Your task to perform on an android device: open app "Indeed Job Search" (install if not already installed) Image 0: 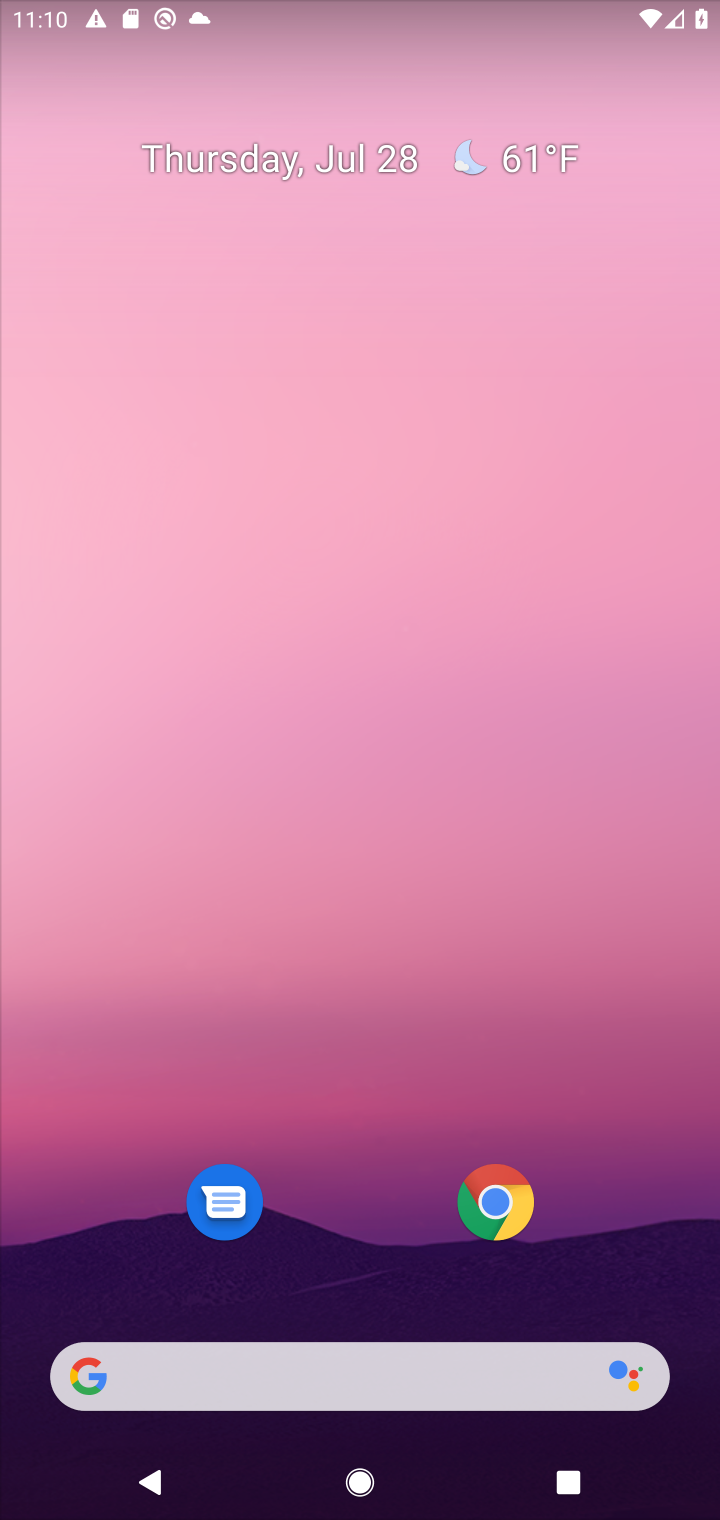
Step 0: click (257, 1391)
Your task to perform on an android device: open app "Indeed Job Search" (install if not already installed) Image 1: 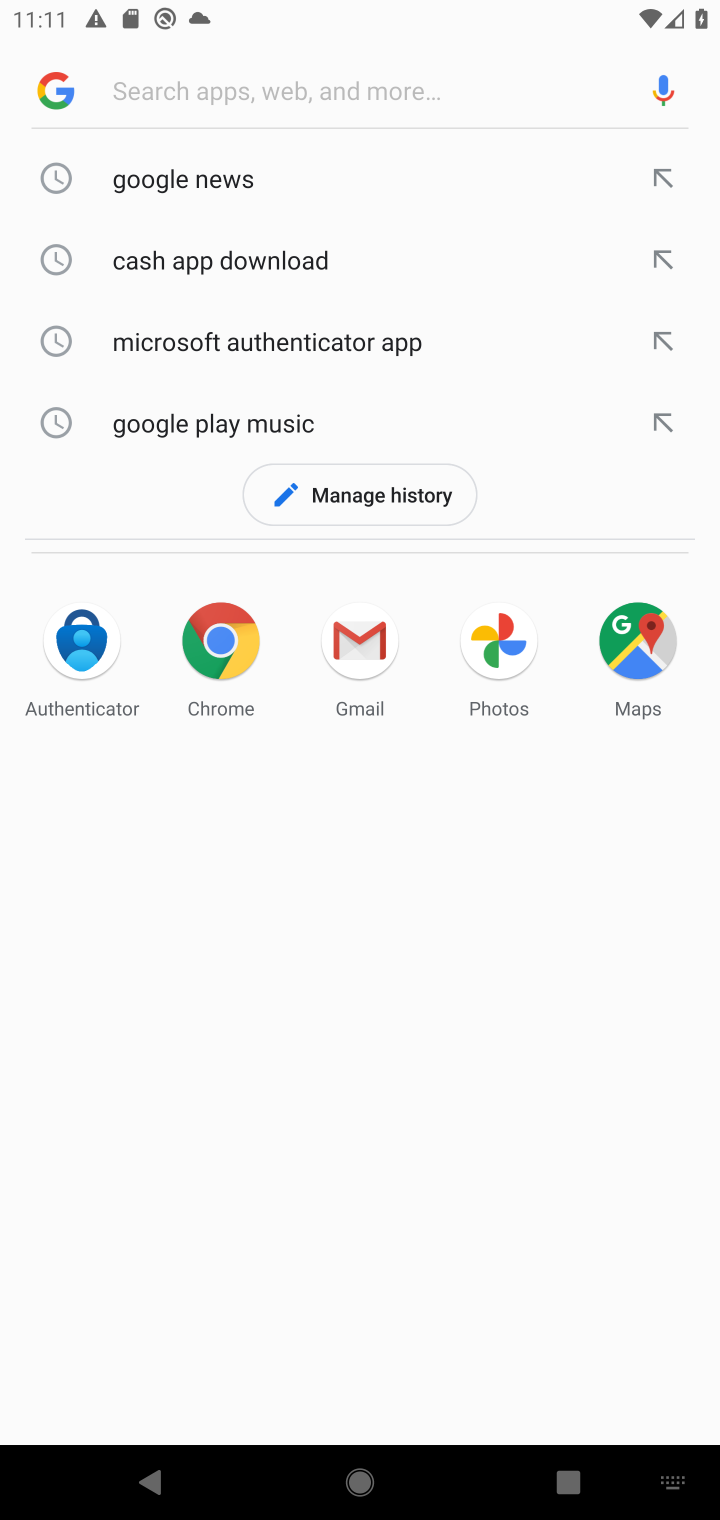
Step 1: type "indeeed\"
Your task to perform on an android device: open app "Indeed Job Search" (install if not already installed) Image 2: 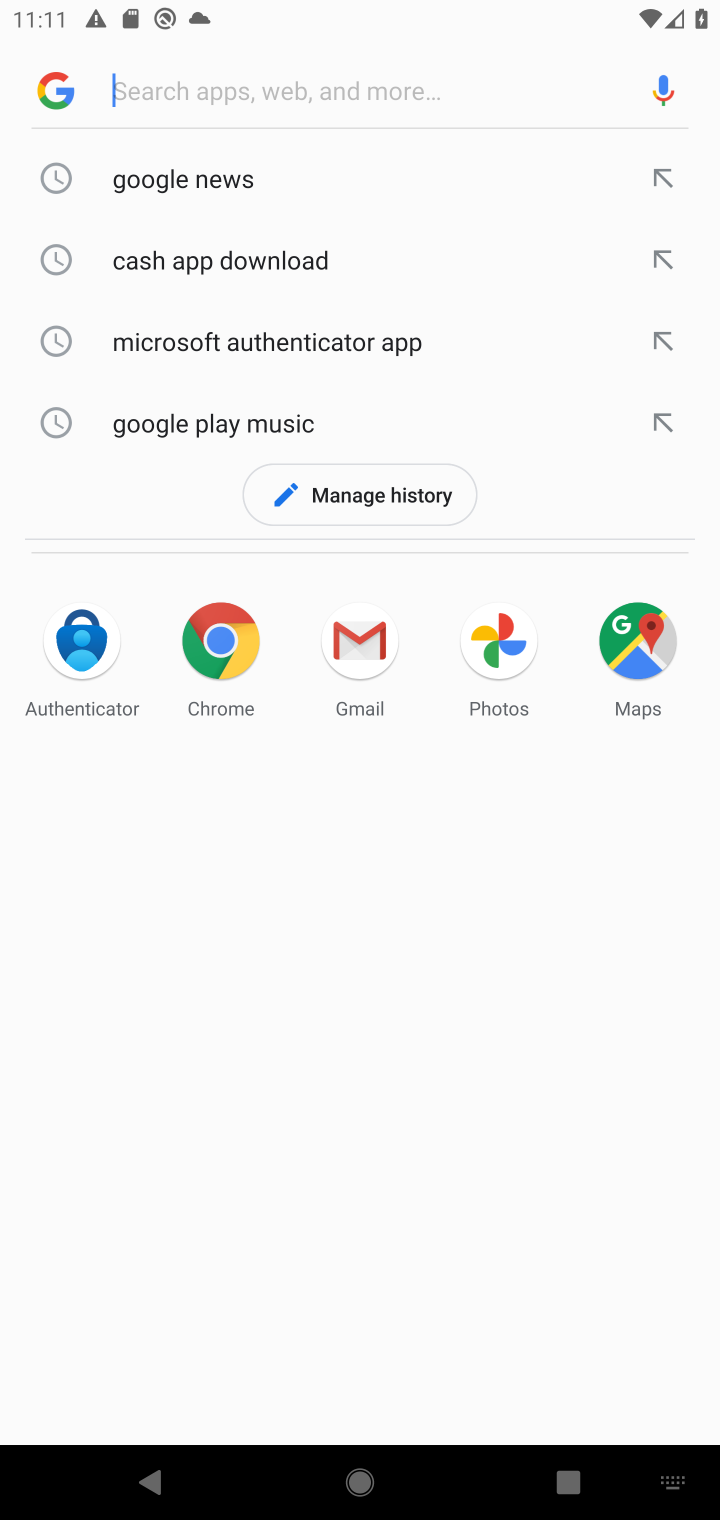
Step 2: click (233, 88)
Your task to perform on an android device: open app "Indeed Job Search" (install if not already installed) Image 3: 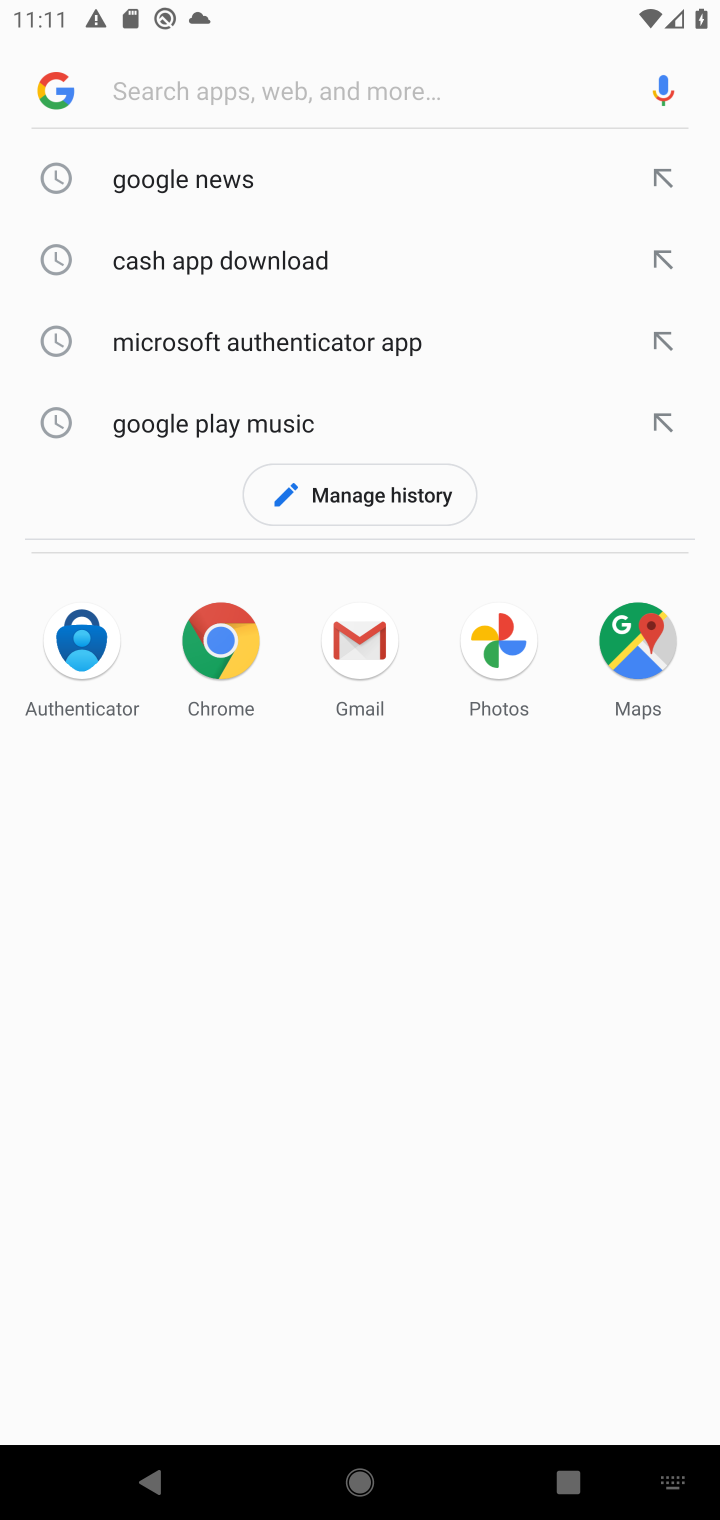
Step 3: click (233, 88)
Your task to perform on an android device: open app "Indeed Job Search" (install if not already installed) Image 4: 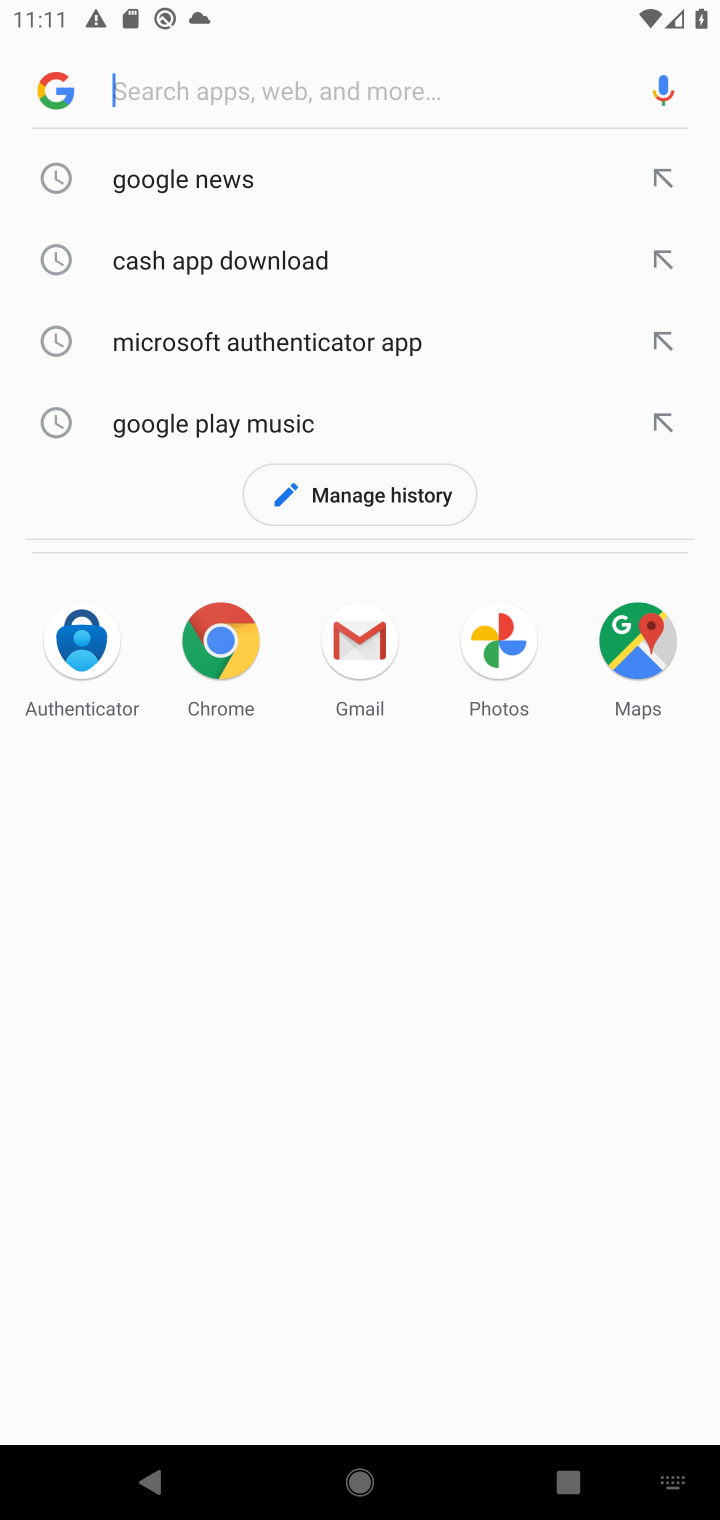
Step 4: type "indedeed"
Your task to perform on an android device: open app "Indeed Job Search" (install if not already installed) Image 5: 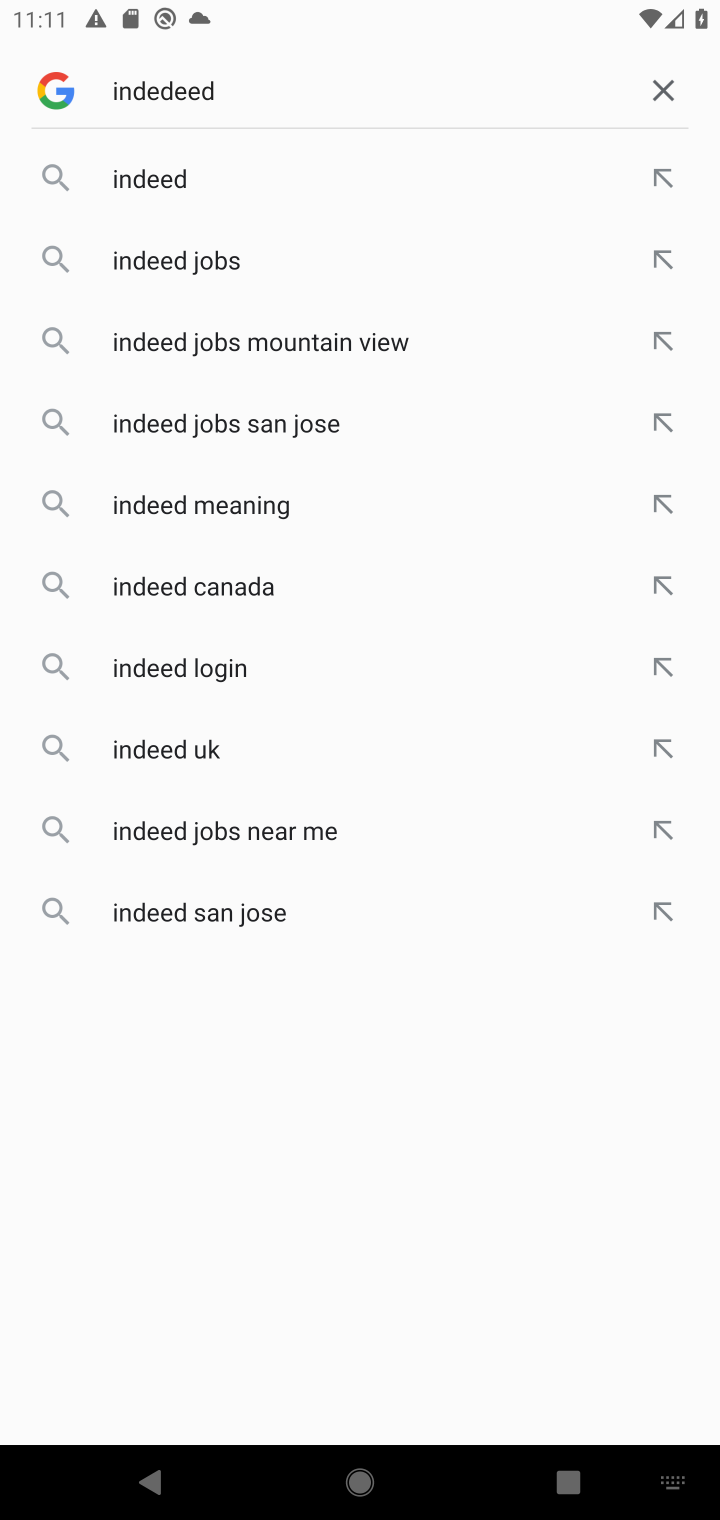
Step 5: click (163, 192)
Your task to perform on an android device: open app "Indeed Job Search" (install if not already installed) Image 6: 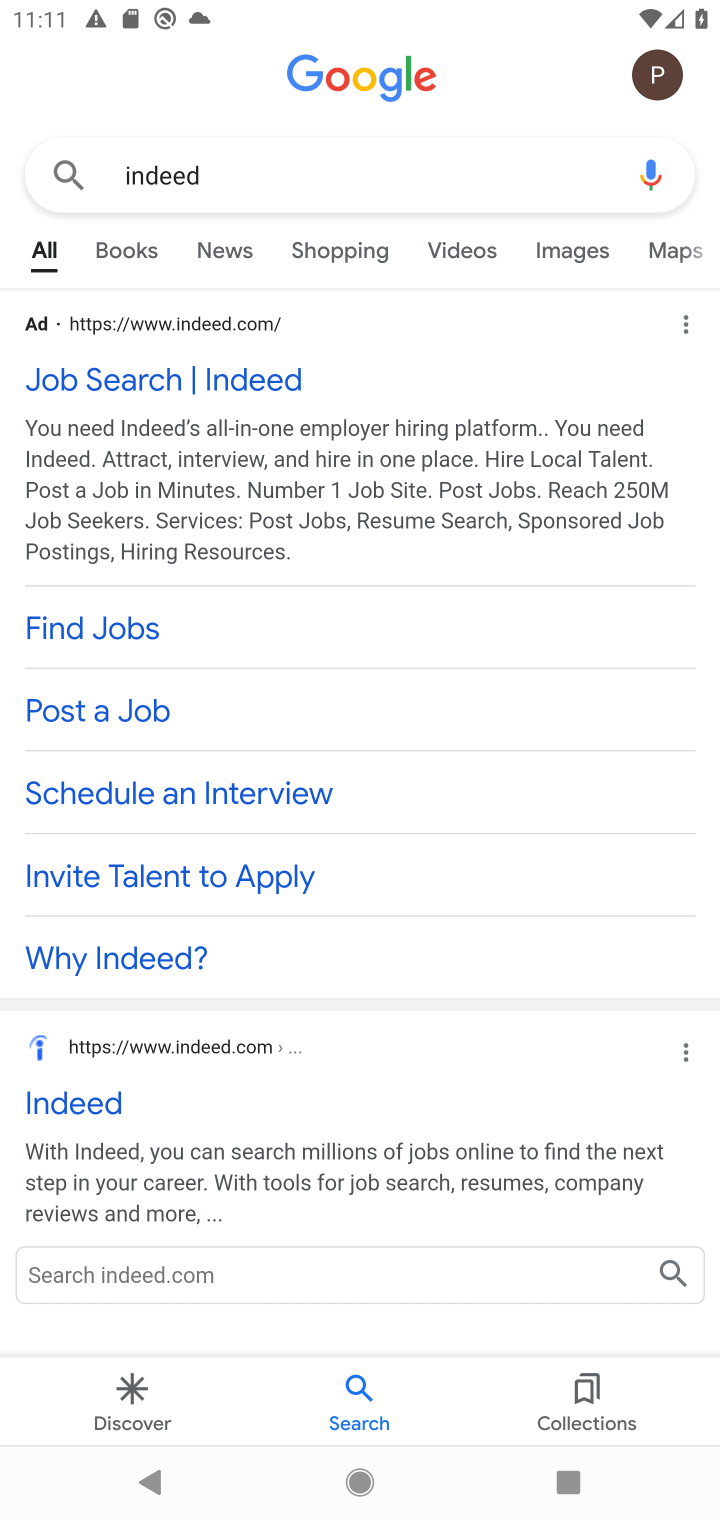
Step 6: drag from (310, 1074) to (434, 394)
Your task to perform on an android device: open app "Indeed Job Search" (install if not already installed) Image 7: 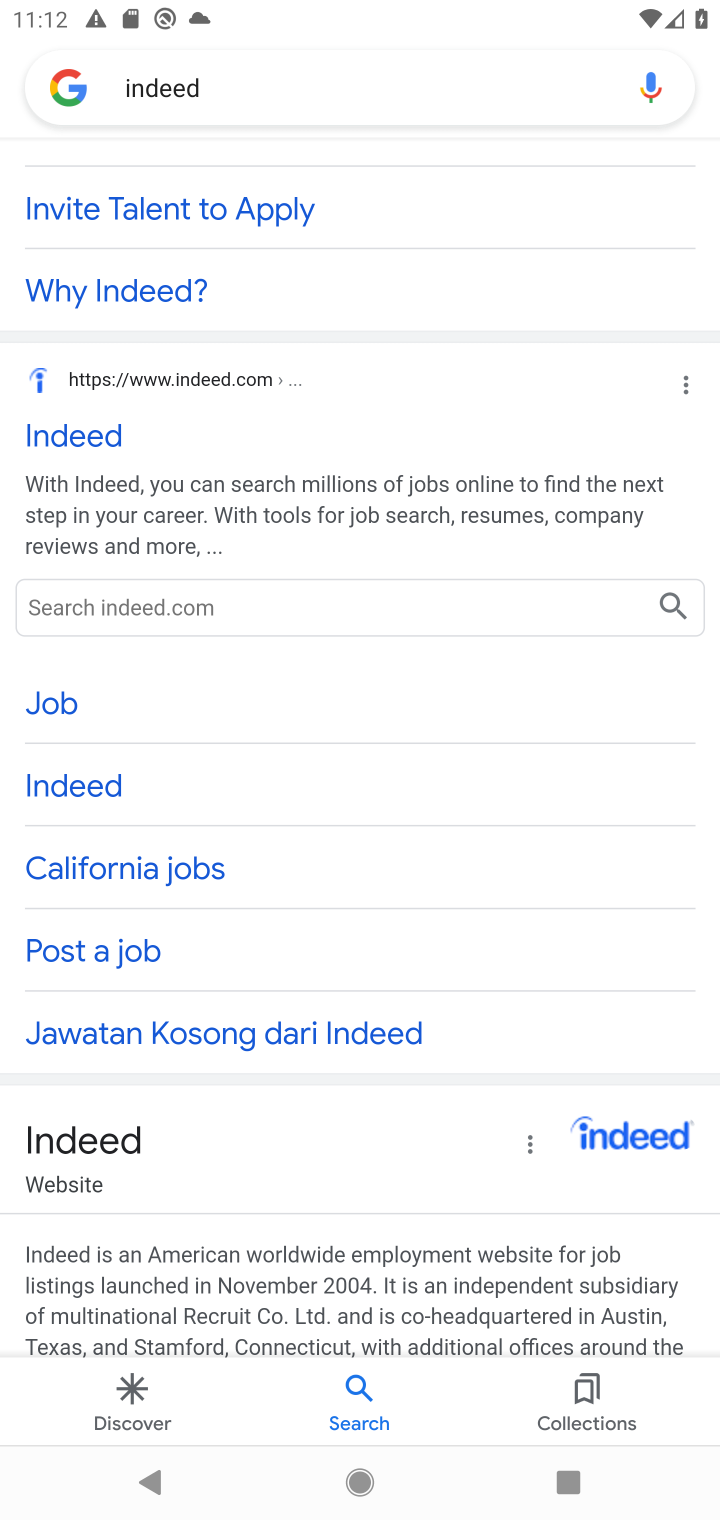
Step 7: drag from (395, 1189) to (519, 583)
Your task to perform on an android device: open app "Indeed Job Search" (install if not already installed) Image 8: 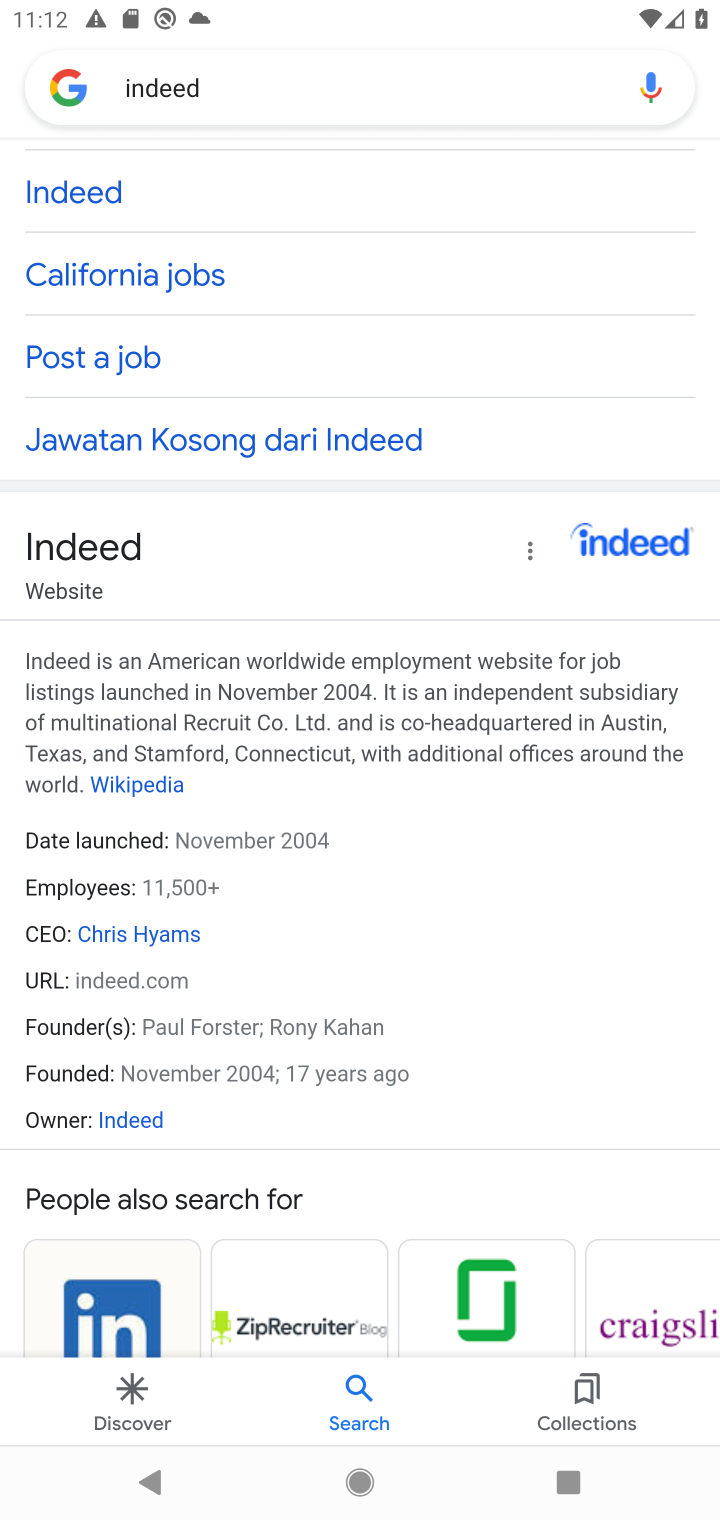
Step 8: drag from (402, 1124) to (483, 645)
Your task to perform on an android device: open app "Indeed Job Search" (install if not already installed) Image 9: 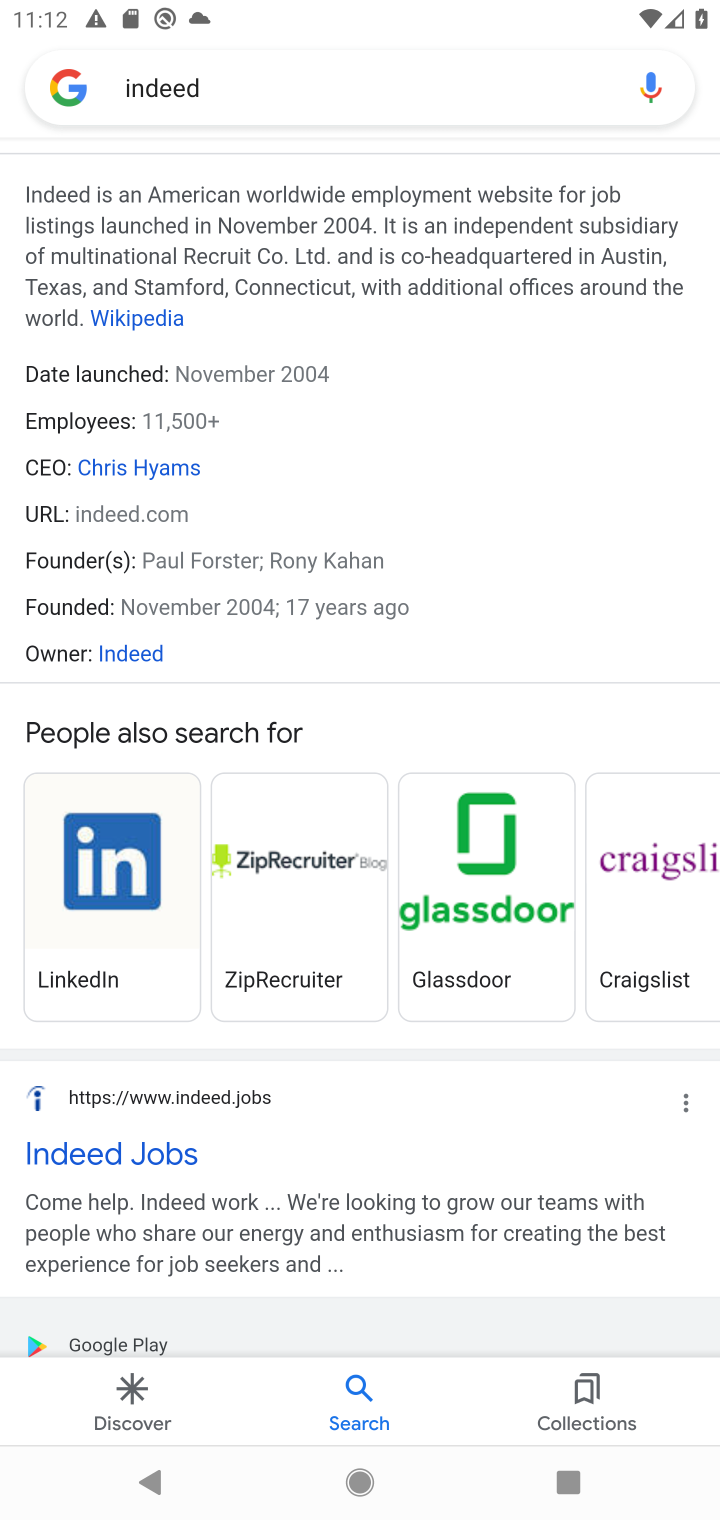
Step 9: drag from (419, 1266) to (458, 814)
Your task to perform on an android device: open app "Indeed Job Search" (install if not already installed) Image 10: 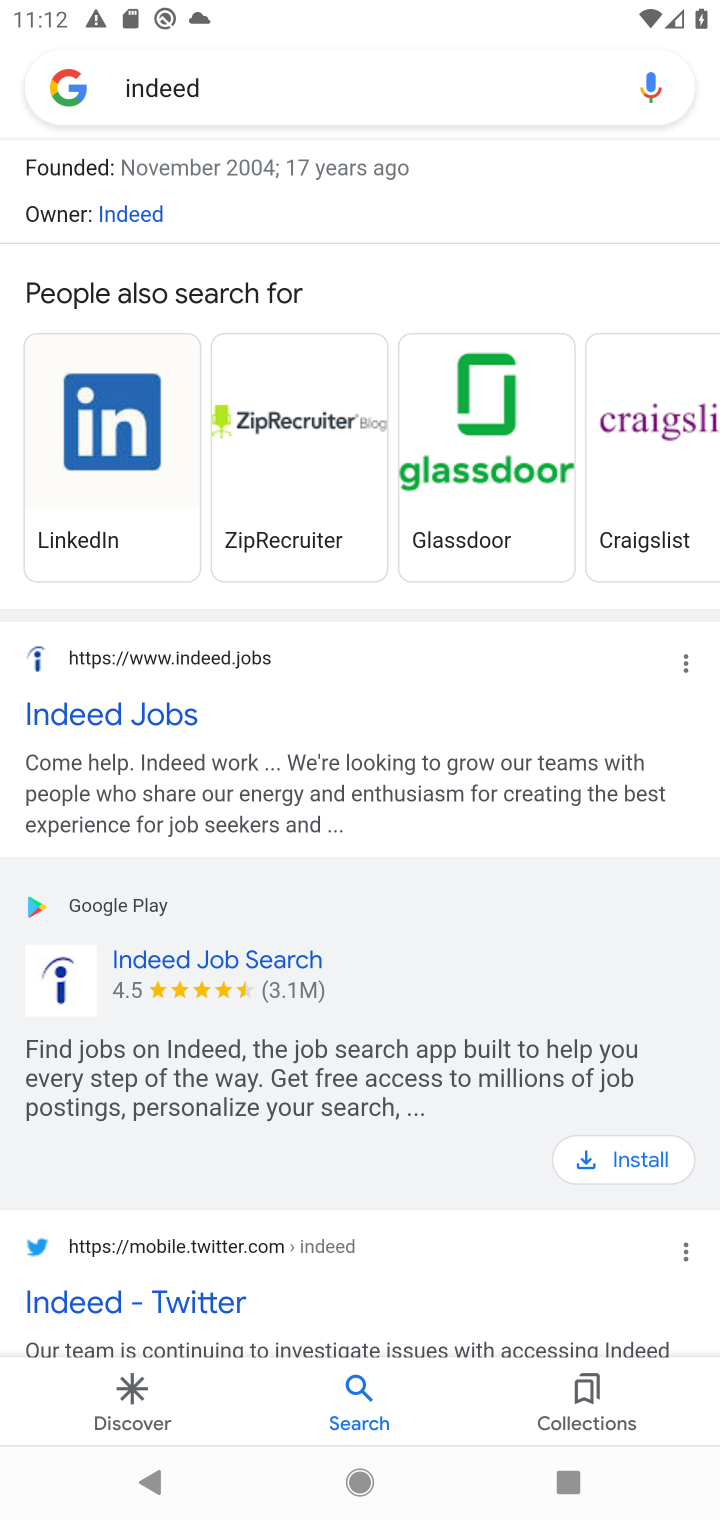
Step 10: click (573, 1162)
Your task to perform on an android device: open app "Indeed Job Search" (install if not already installed) Image 11: 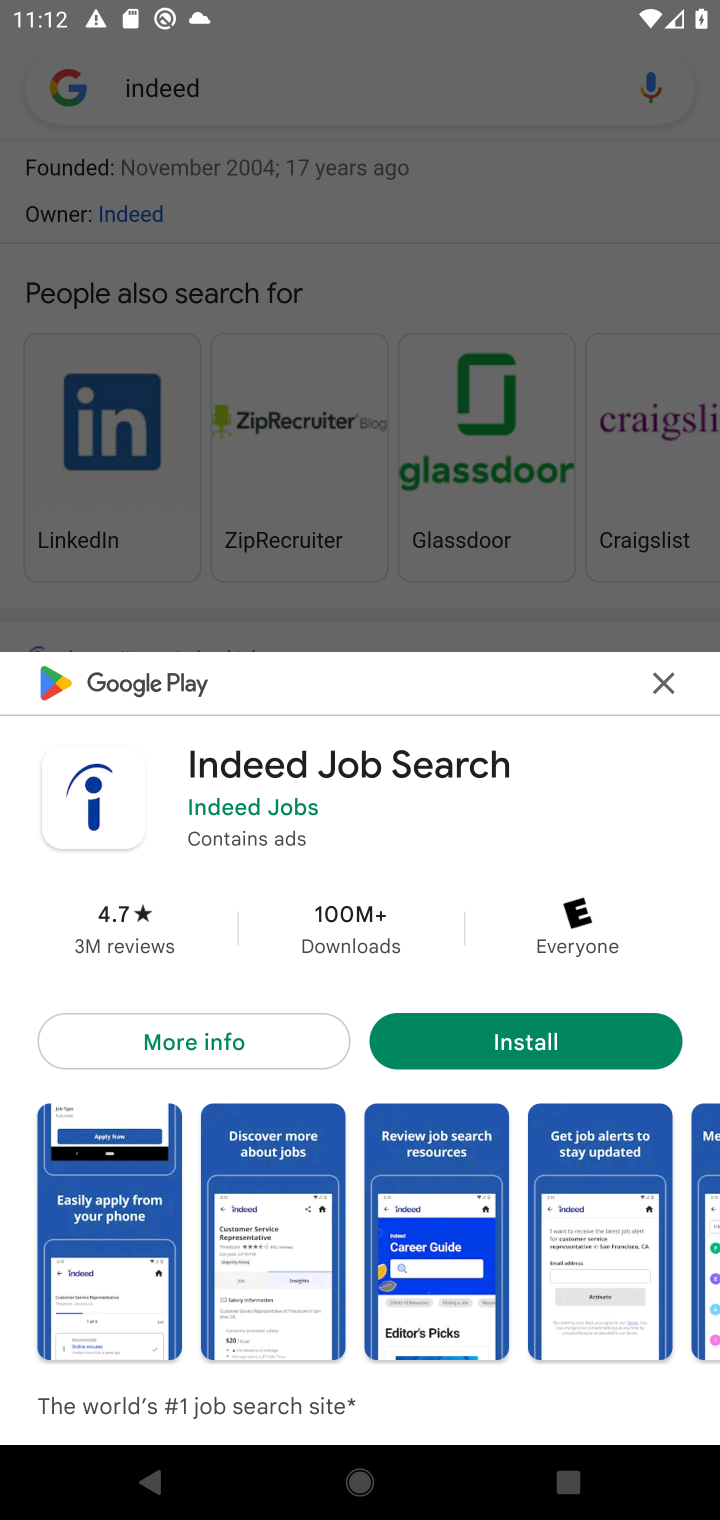
Step 11: click (526, 1034)
Your task to perform on an android device: open app "Indeed Job Search" (install if not already installed) Image 12: 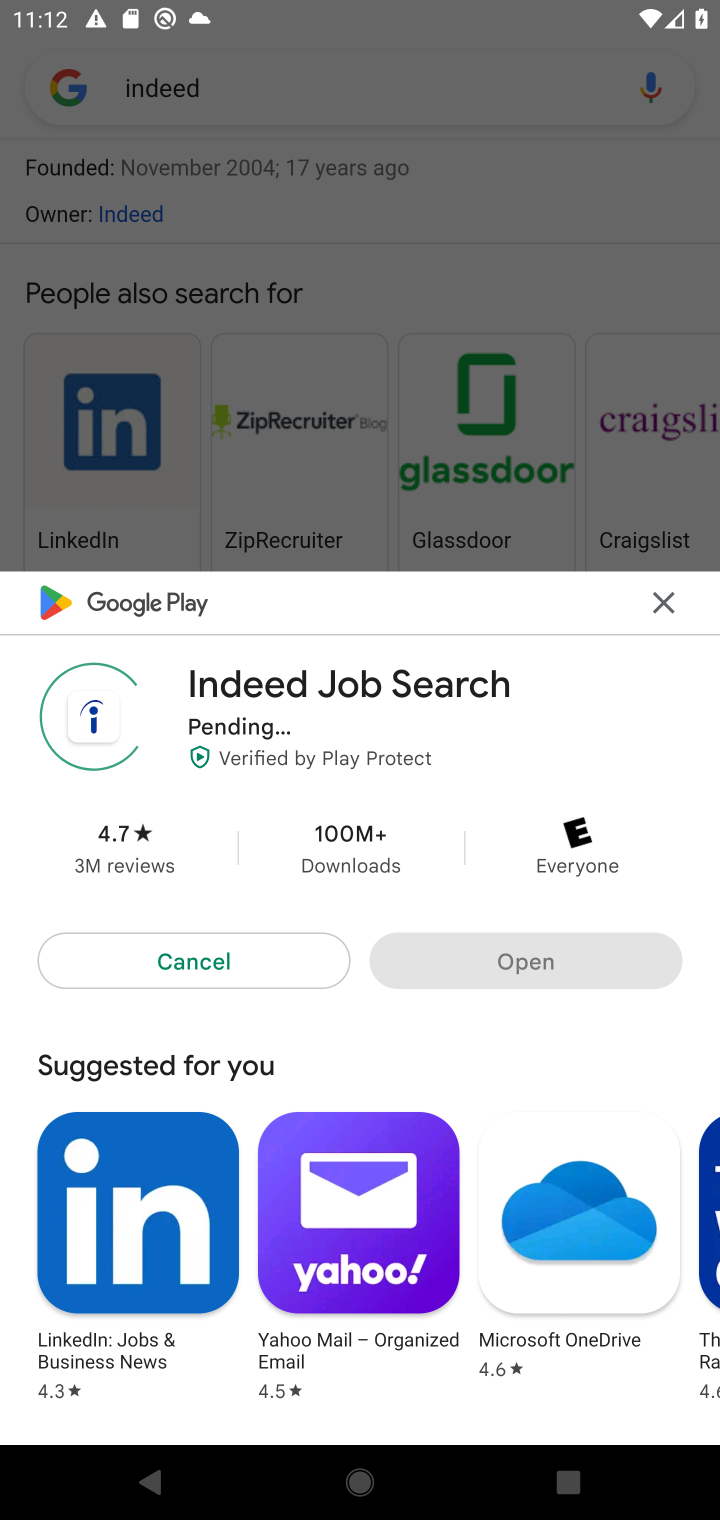
Step 12: task complete